Your task to perform on an android device: Open Maps and search for coffee Image 0: 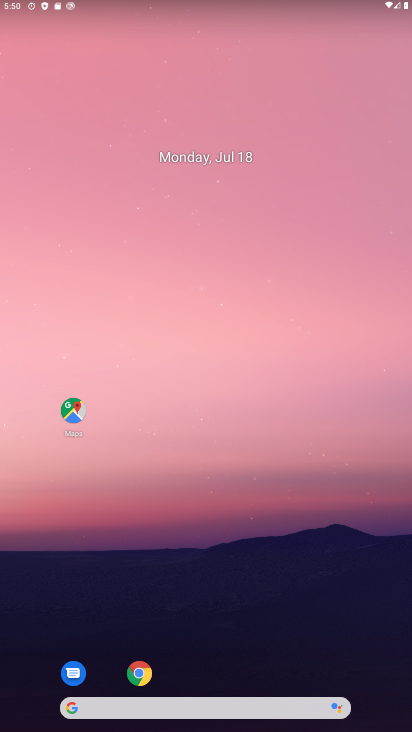
Step 0: click (68, 405)
Your task to perform on an android device: Open Maps and search for coffee Image 1: 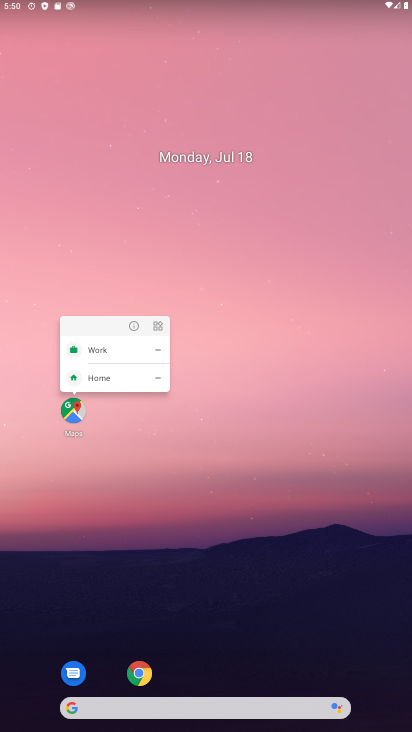
Step 1: click (72, 409)
Your task to perform on an android device: Open Maps and search for coffee Image 2: 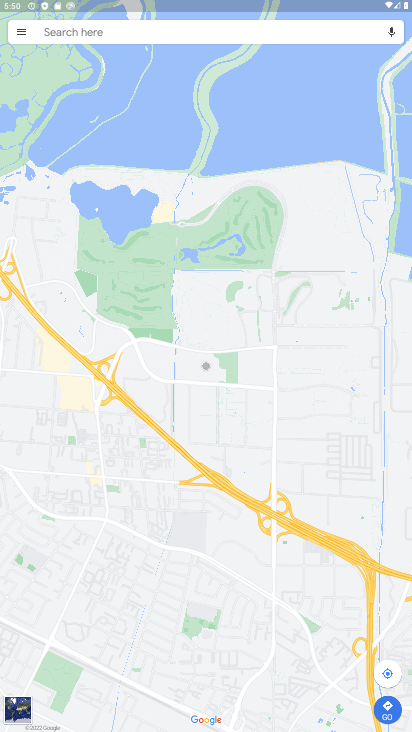
Step 2: click (142, 39)
Your task to perform on an android device: Open Maps and search for coffee Image 3: 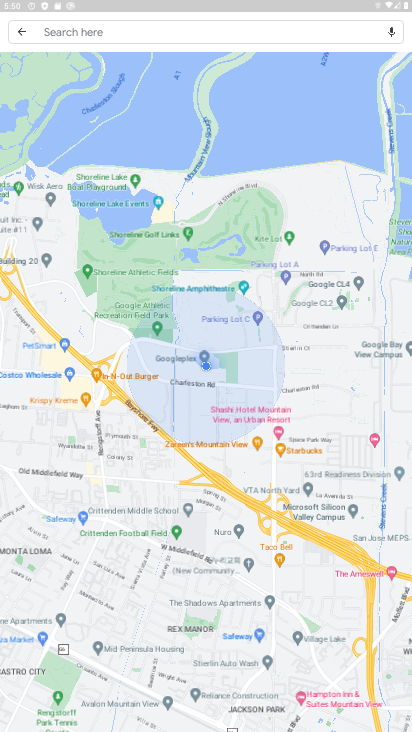
Step 3: type "coffee"
Your task to perform on an android device: Open Maps and search for coffee Image 4: 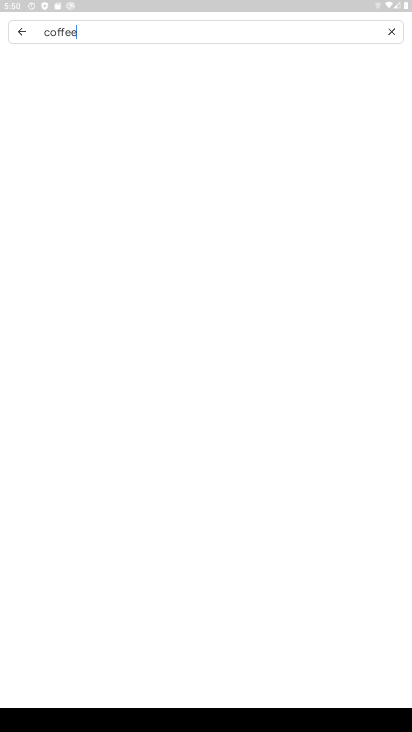
Step 4: press enter
Your task to perform on an android device: Open Maps and search for coffee Image 5: 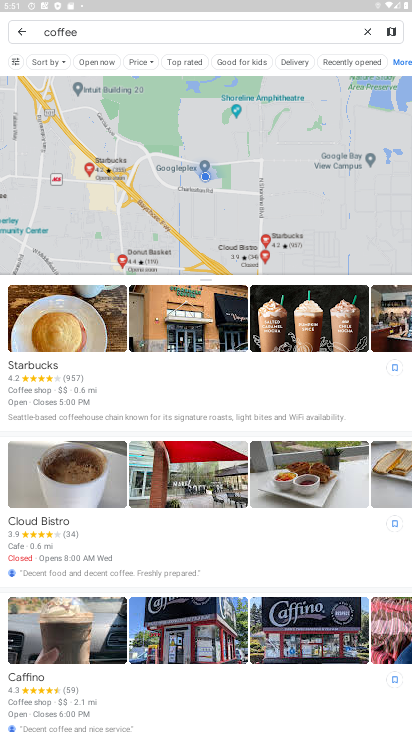
Step 5: task complete